Your task to perform on an android device: toggle priority inbox in the gmail app Image 0: 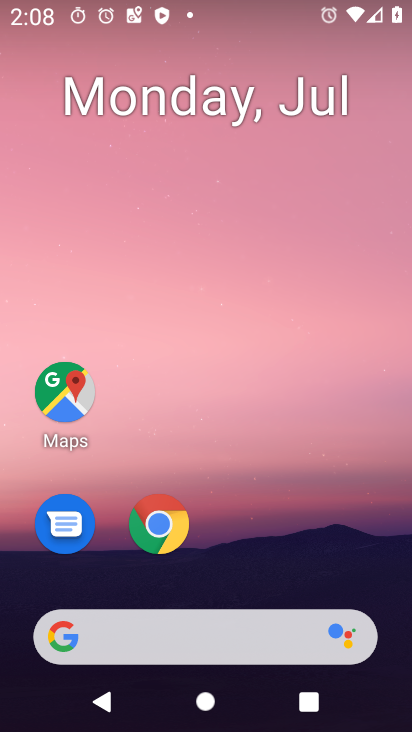
Step 0: press home button
Your task to perform on an android device: toggle priority inbox in the gmail app Image 1: 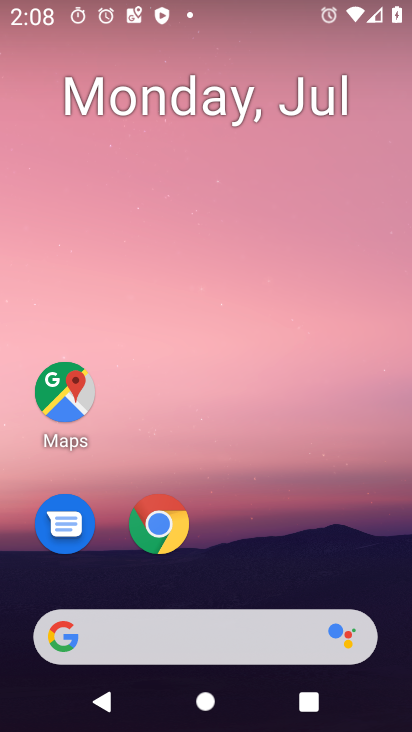
Step 1: press home button
Your task to perform on an android device: toggle priority inbox in the gmail app Image 2: 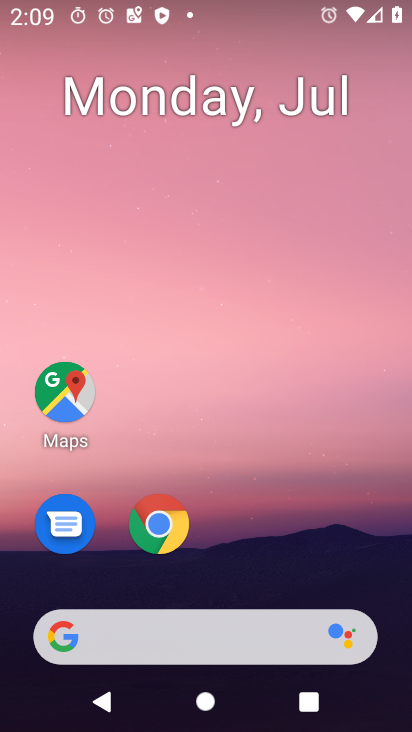
Step 2: drag from (241, 474) to (248, 23)
Your task to perform on an android device: toggle priority inbox in the gmail app Image 3: 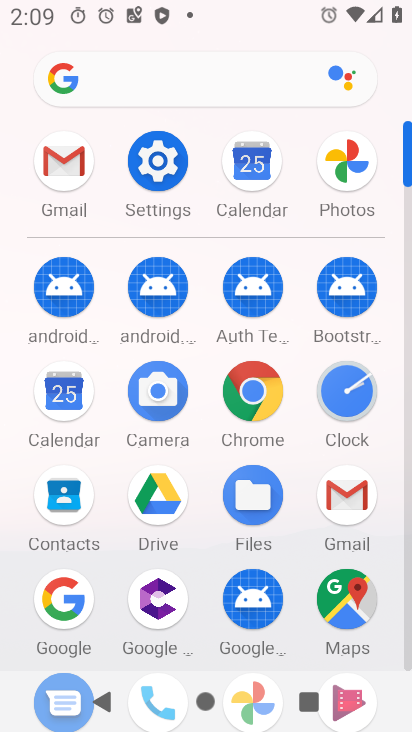
Step 3: click (58, 178)
Your task to perform on an android device: toggle priority inbox in the gmail app Image 4: 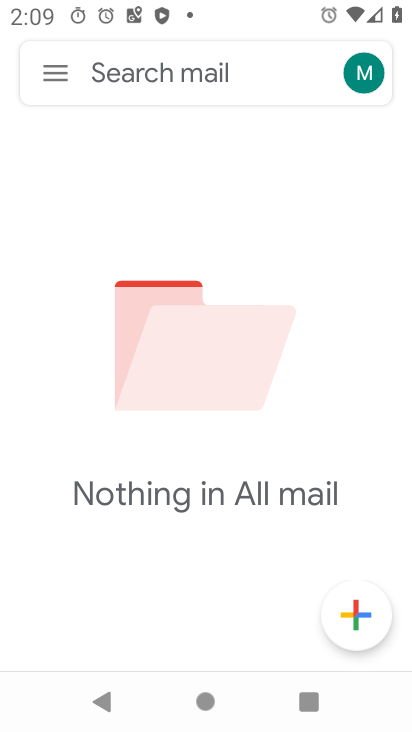
Step 4: click (62, 76)
Your task to perform on an android device: toggle priority inbox in the gmail app Image 5: 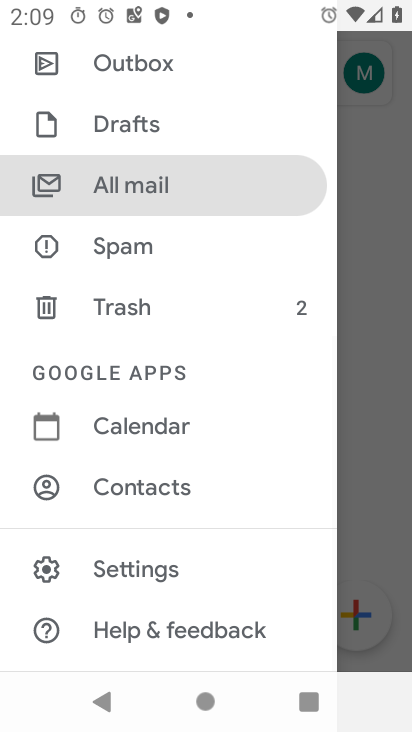
Step 5: click (149, 567)
Your task to perform on an android device: toggle priority inbox in the gmail app Image 6: 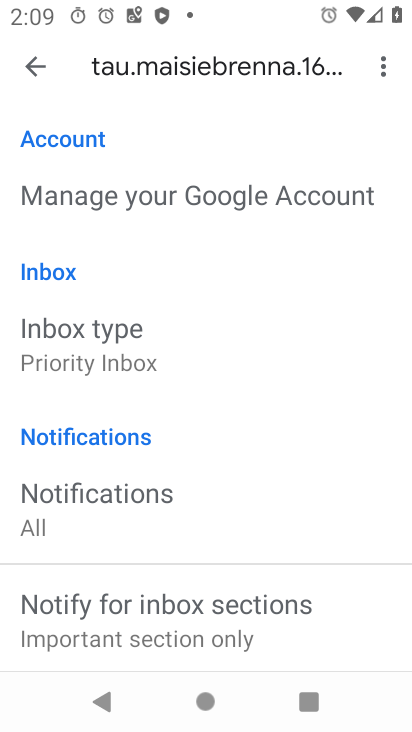
Step 6: click (98, 346)
Your task to perform on an android device: toggle priority inbox in the gmail app Image 7: 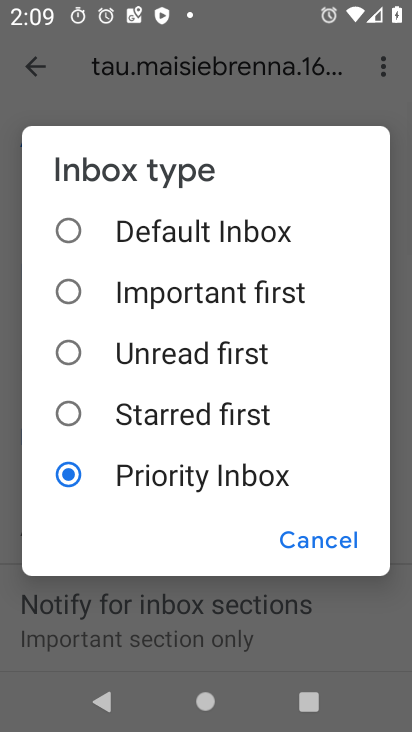
Step 7: click (62, 227)
Your task to perform on an android device: toggle priority inbox in the gmail app Image 8: 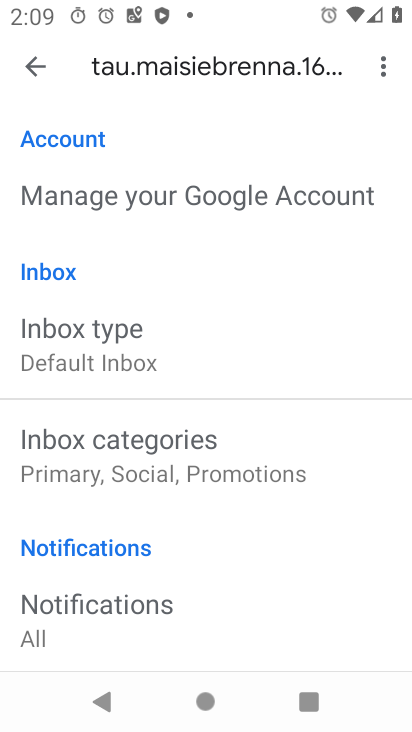
Step 8: task complete